Your task to perform on an android device: toggle priority inbox in the gmail app Image 0: 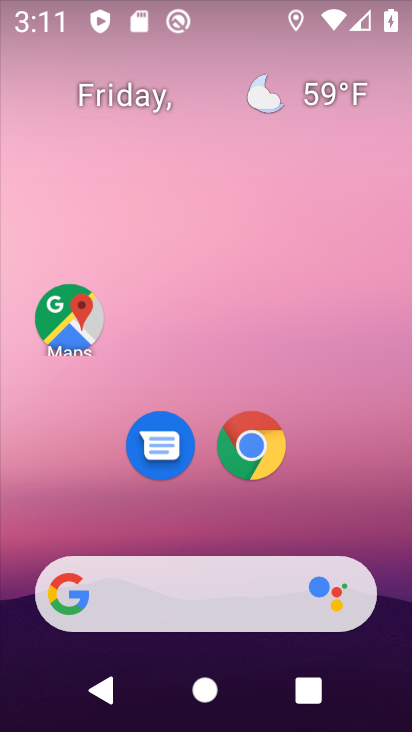
Step 0: drag from (404, 604) to (352, 114)
Your task to perform on an android device: toggle priority inbox in the gmail app Image 1: 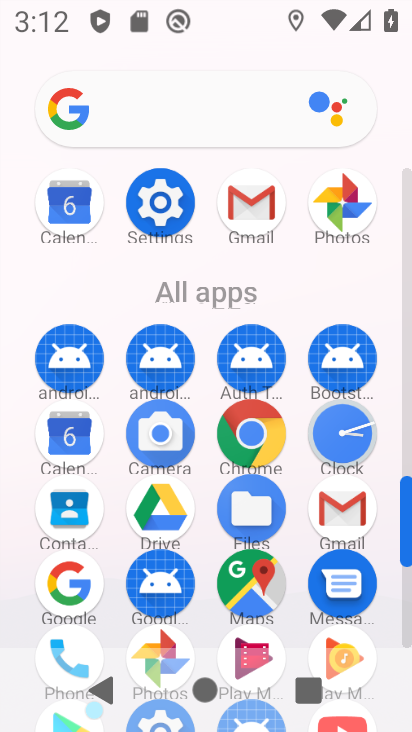
Step 1: click (407, 635)
Your task to perform on an android device: toggle priority inbox in the gmail app Image 2: 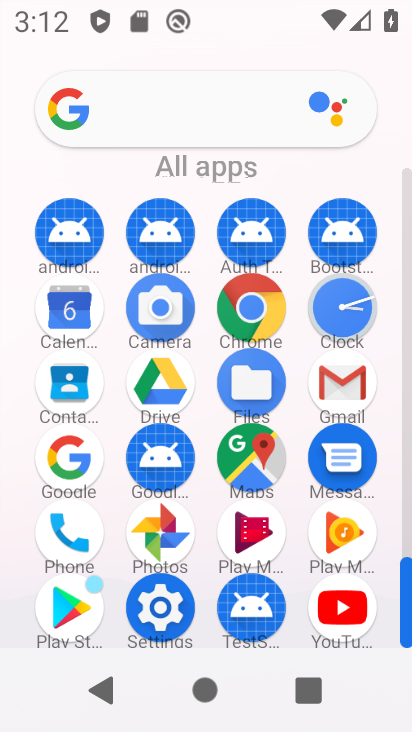
Step 2: click (343, 378)
Your task to perform on an android device: toggle priority inbox in the gmail app Image 3: 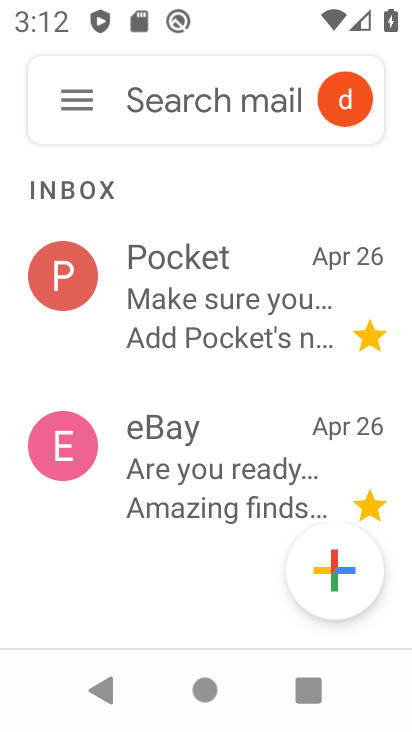
Step 3: click (74, 97)
Your task to perform on an android device: toggle priority inbox in the gmail app Image 4: 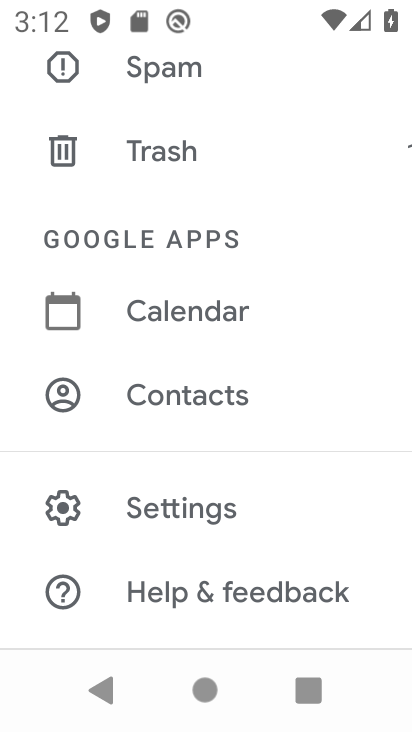
Step 4: click (173, 505)
Your task to perform on an android device: toggle priority inbox in the gmail app Image 5: 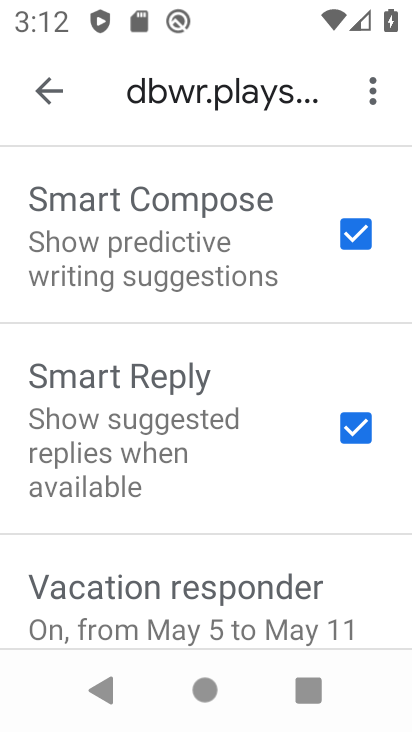
Step 5: drag from (250, 239) to (219, 483)
Your task to perform on an android device: toggle priority inbox in the gmail app Image 6: 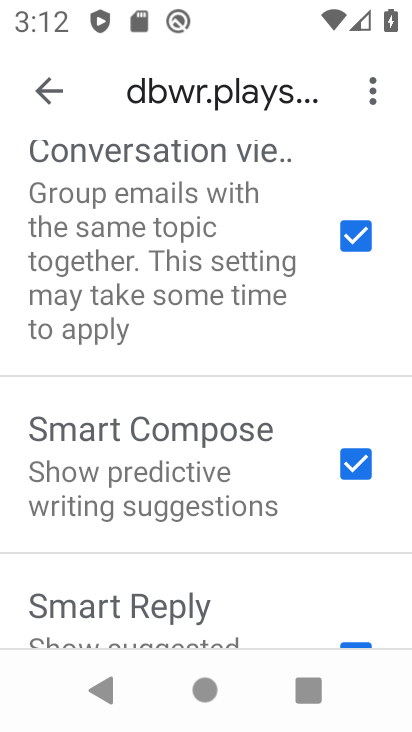
Step 6: drag from (242, 235) to (231, 497)
Your task to perform on an android device: toggle priority inbox in the gmail app Image 7: 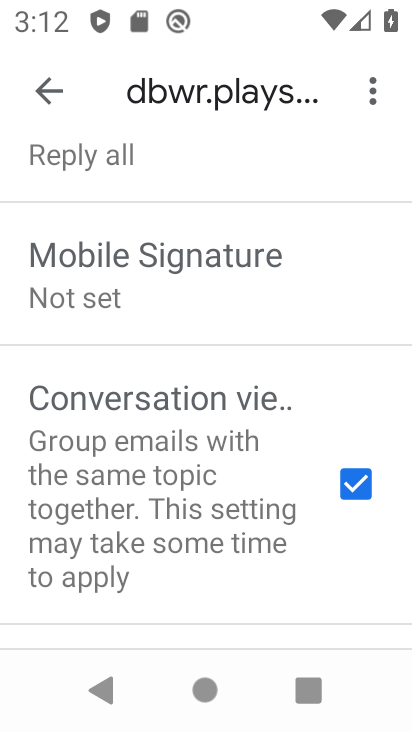
Step 7: drag from (275, 222) to (257, 501)
Your task to perform on an android device: toggle priority inbox in the gmail app Image 8: 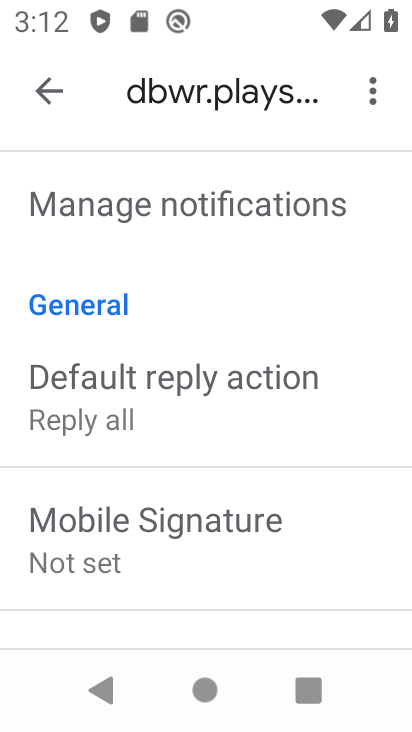
Step 8: drag from (262, 269) to (254, 510)
Your task to perform on an android device: toggle priority inbox in the gmail app Image 9: 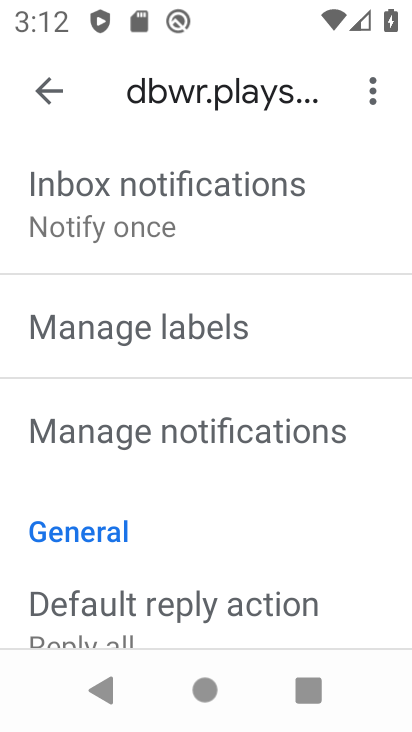
Step 9: drag from (265, 233) to (255, 490)
Your task to perform on an android device: toggle priority inbox in the gmail app Image 10: 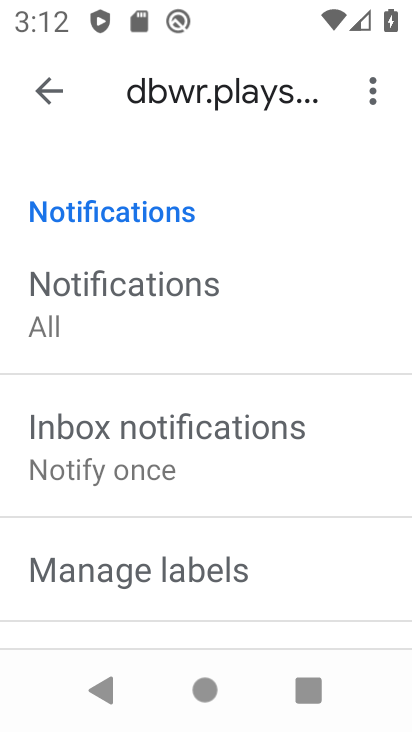
Step 10: drag from (287, 271) to (291, 524)
Your task to perform on an android device: toggle priority inbox in the gmail app Image 11: 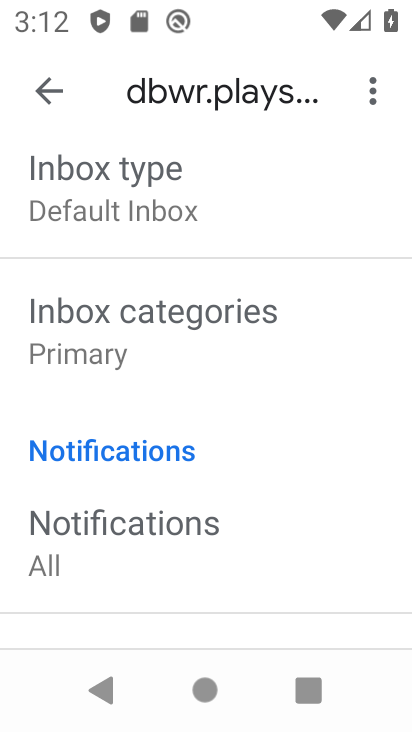
Step 11: drag from (284, 267) to (296, 478)
Your task to perform on an android device: toggle priority inbox in the gmail app Image 12: 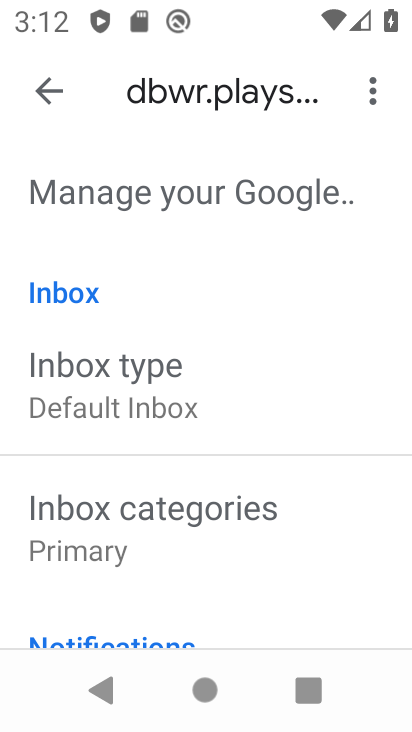
Step 12: click (91, 399)
Your task to perform on an android device: toggle priority inbox in the gmail app Image 13: 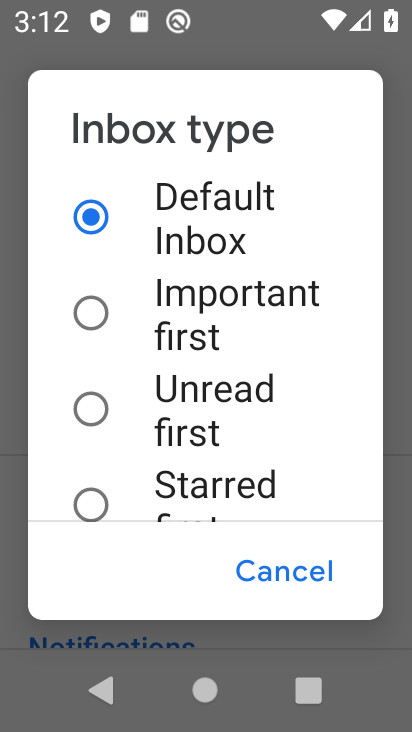
Step 13: drag from (91, 452) to (125, 189)
Your task to perform on an android device: toggle priority inbox in the gmail app Image 14: 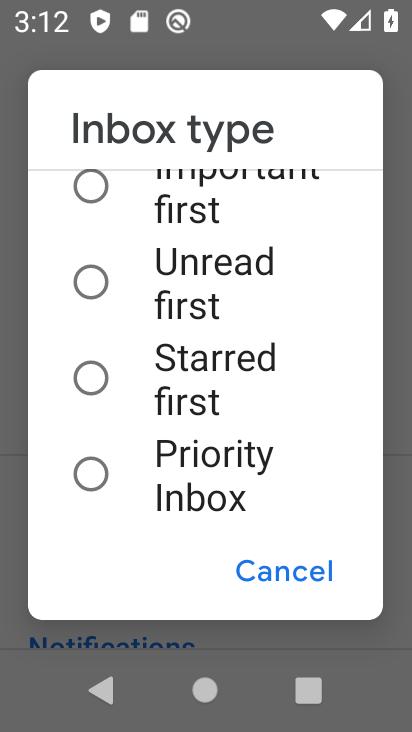
Step 14: click (99, 476)
Your task to perform on an android device: toggle priority inbox in the gmail app Image 15: 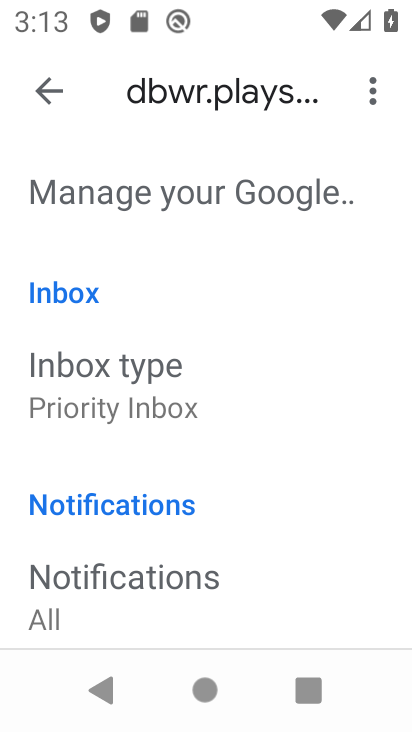
Step 15: task complete